Your task to perform on an android device: How much does a 3 bedroom apartment rent for in Denver? Image 0: 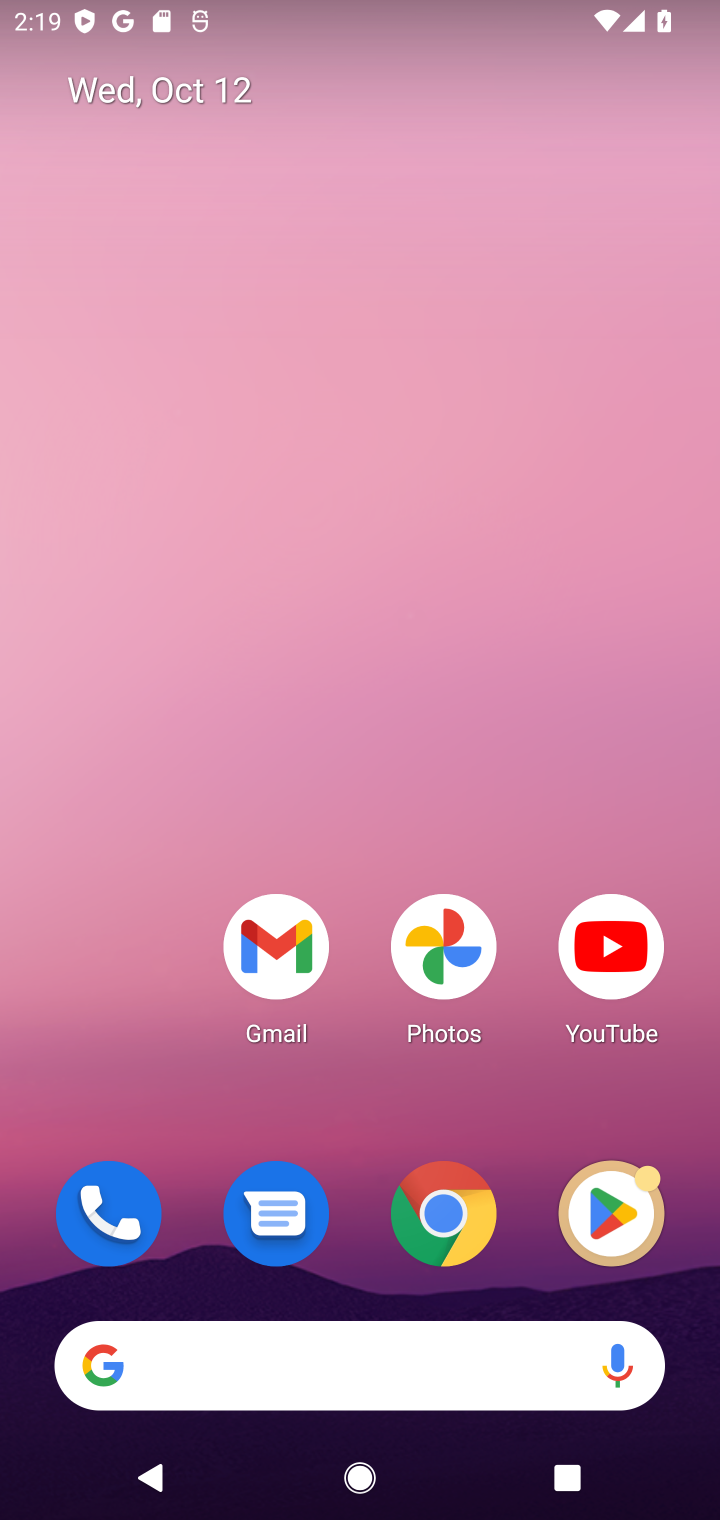
Step 0: click (428, 1368)
Your task to perform on an android device: How much does a 3 bedroom apartment rent for in Denver? Image 1: 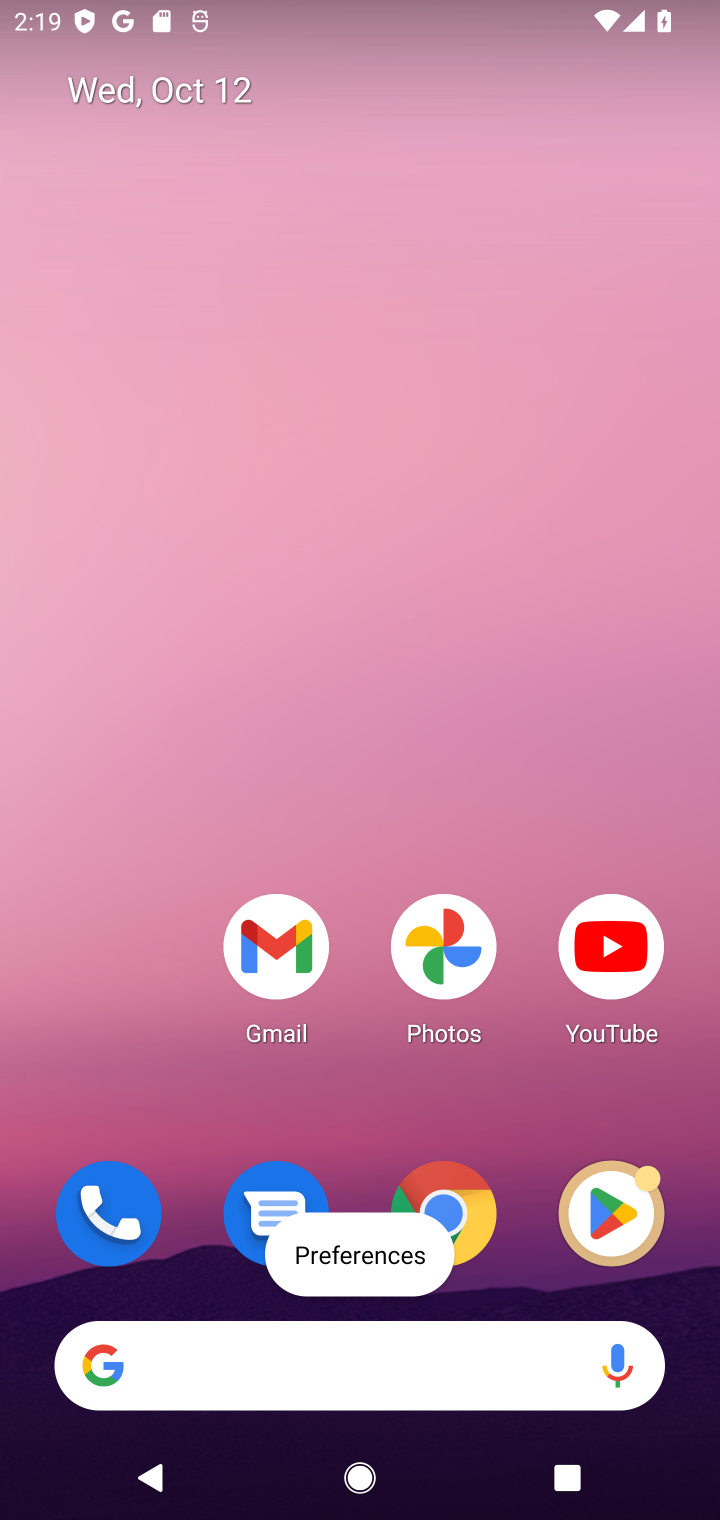
Step 1: click (318, 1381)
Your task to perform on an android device: How much does a 3 bedroom apartment rent for in Denver? Image 2: 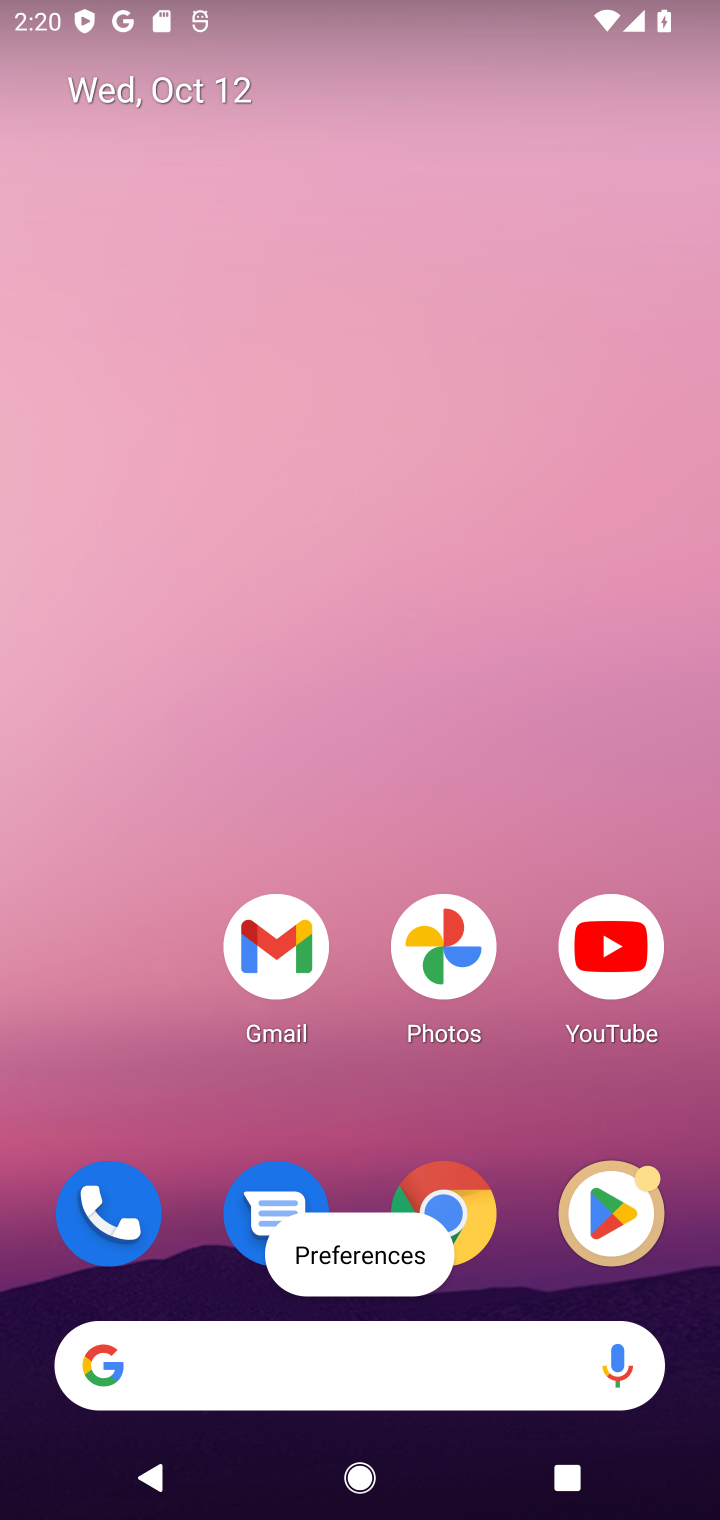
Step 2: click (262, 1369)
Your task to perform on an android device: How much does a 3 bedroom apartment rent for in Denver? Image 3: 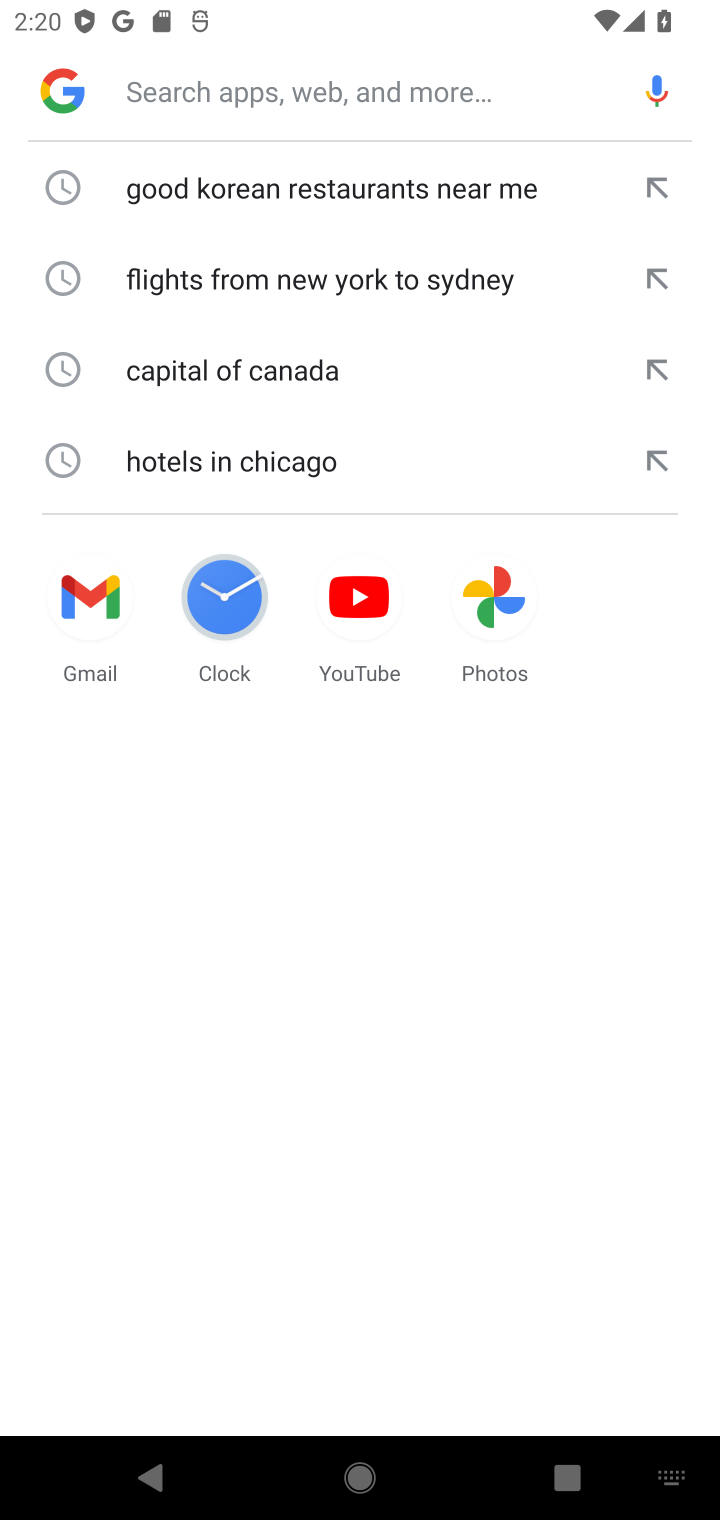
Step 3: click (156, 57)
Your task to perform on an android device: How much does a 3 bedroom apartment rent for in Denver? Image 4: 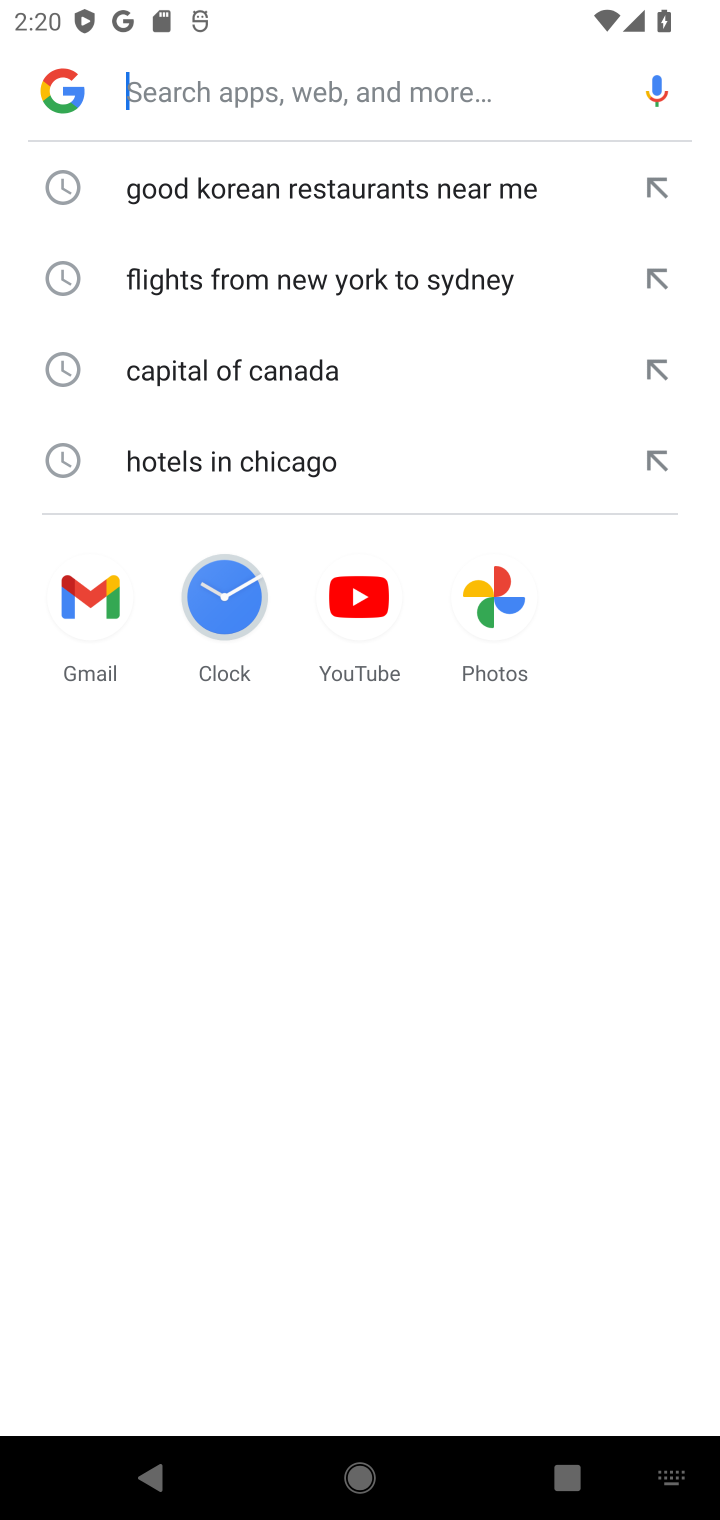
Step 4: type "How much does a 3 bedroom apartment rent for in Denver?"
Your task to perform on an android device: How much does a 3 bedroom apartment rent for in Denver? Image 5: 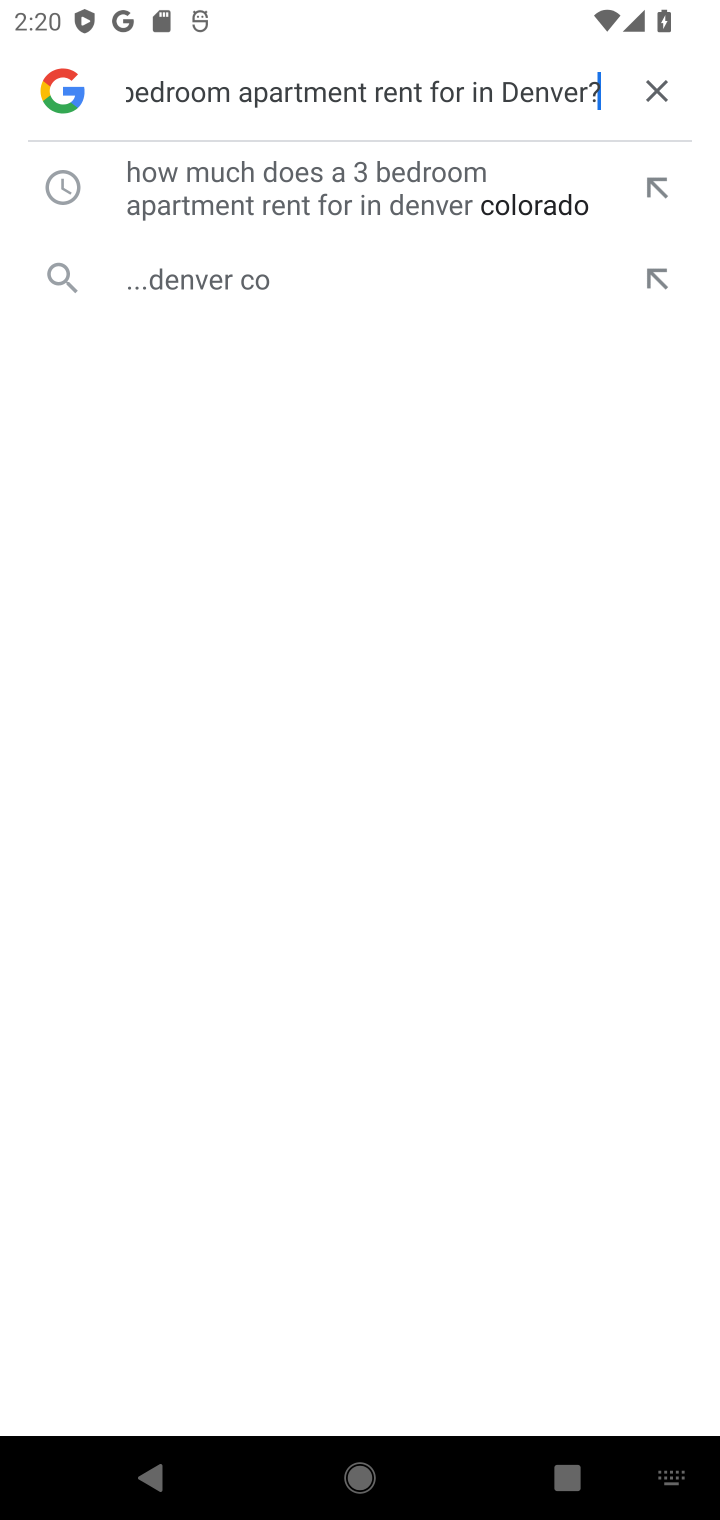
Step 5: click (393, 180)
Your task to perform on an android device: How much does a 3 bedroom apartment rent for in Denver? Image 6: 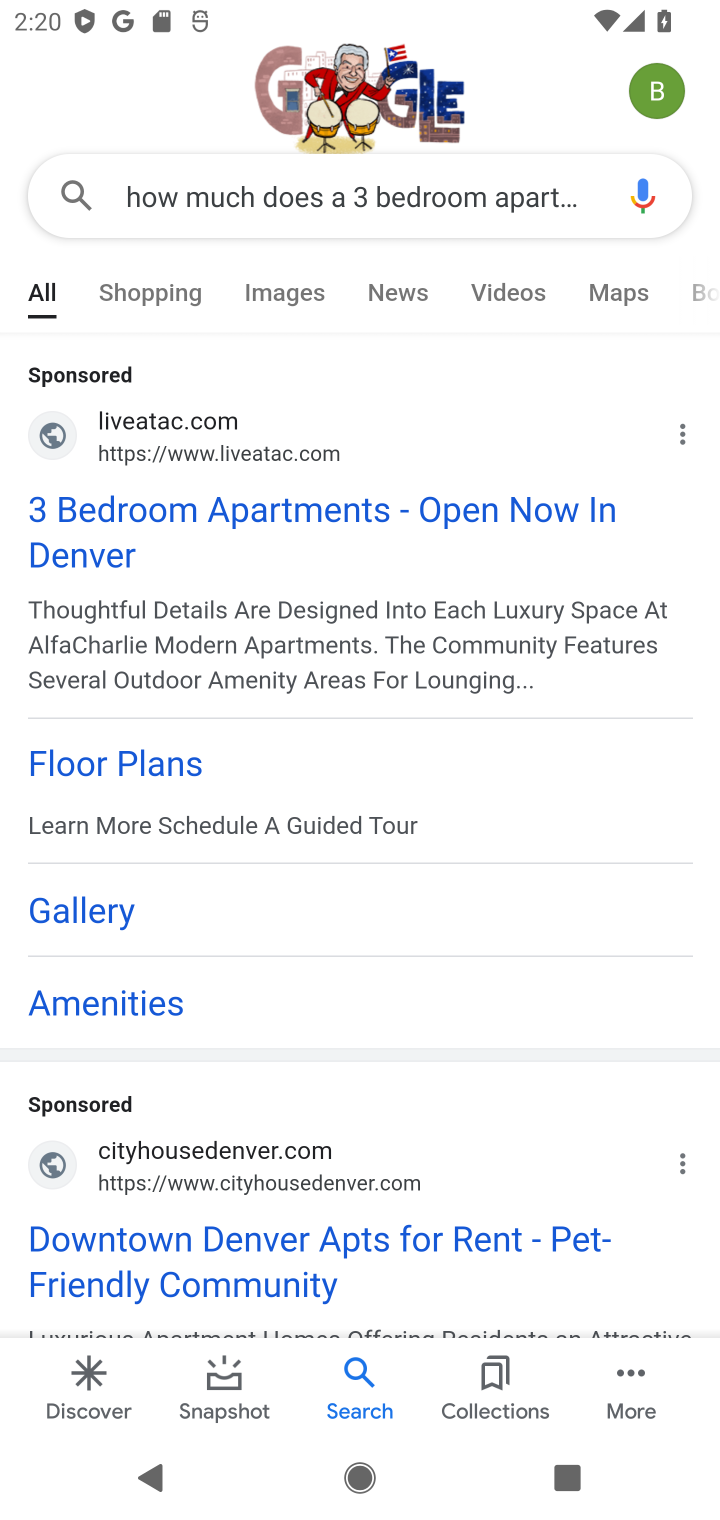
Step 6: task complete